Your task to perform on an android device: Open Yahoo.com Image 0: 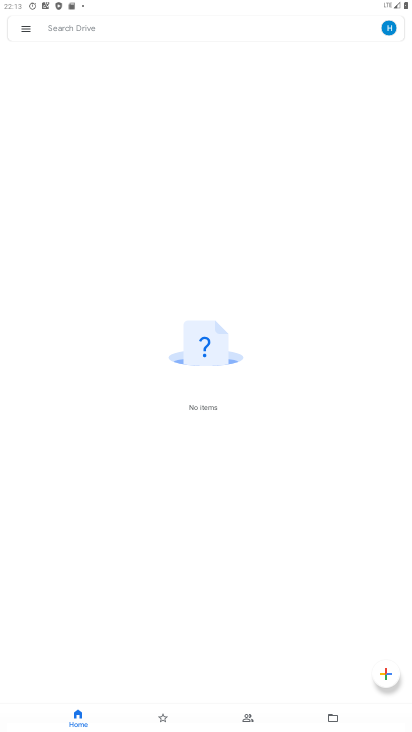
Step 0: press home button
Your task to perform on an android device: Open Yahoo.com Image 1: 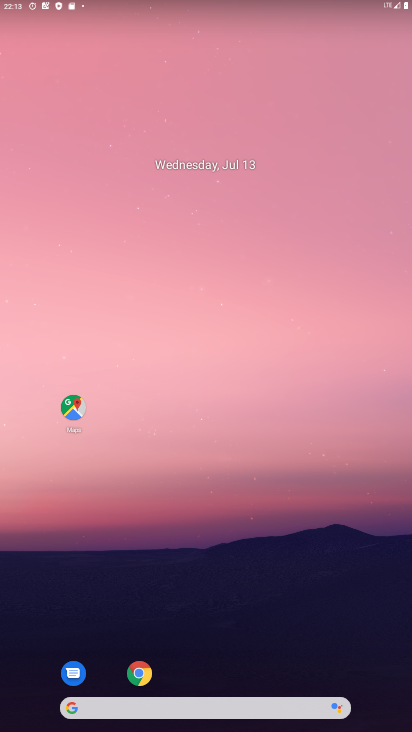
Step 1: drag from (184, 635) to (245, 255)
Your task to perform on an android device: Open Yahoo.com Image 2: 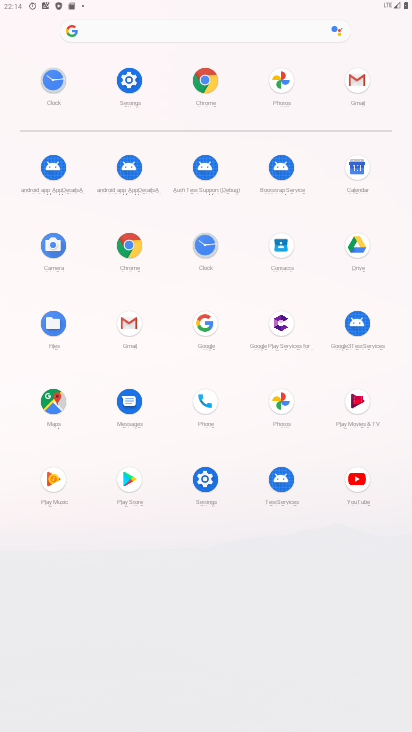
Step 2: click (132, 246)
Your task to perform on an android device: Open Yahoo.com Image 3: 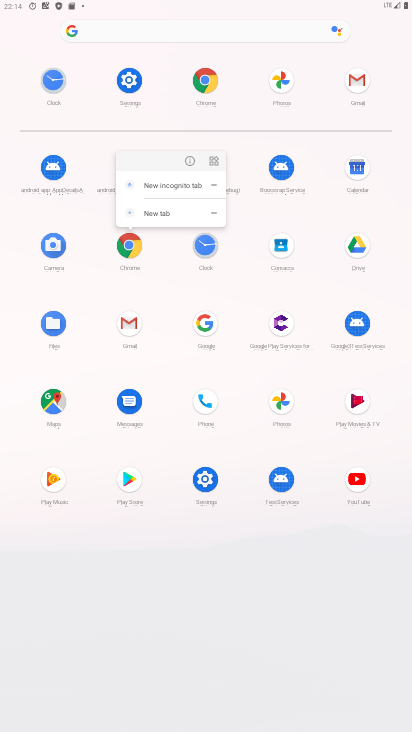
Step 3: click (187, 158)
Your task to perform on an android device: Open Yahoo.com Image 4: 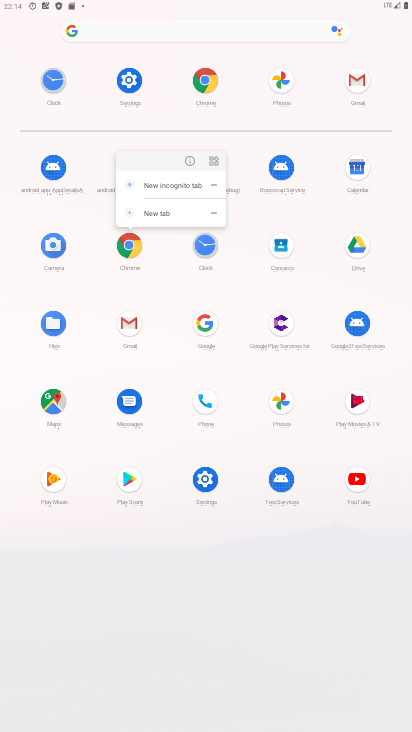
Step 4: click (187, 158)
Your task to perform on an android device: Open Yahoo.com Image 5: 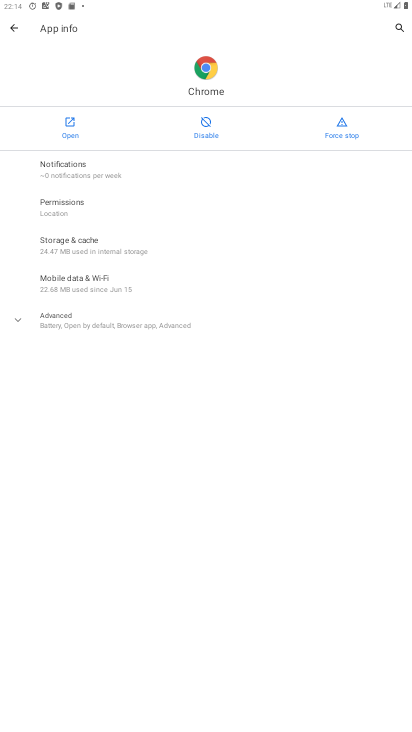
Step 5: click (69, 125)
Your task to perform on an android device: Open Yahoo.com Image 6: 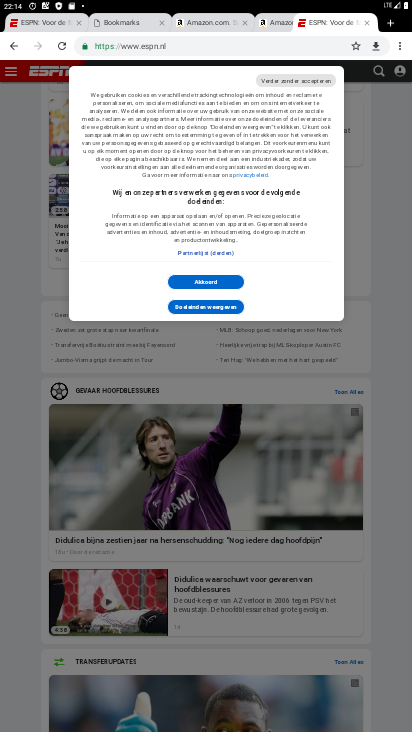
Step 6: click (367, 21)
Your task to perform on an android device: Open Yahoo.com Image 7: 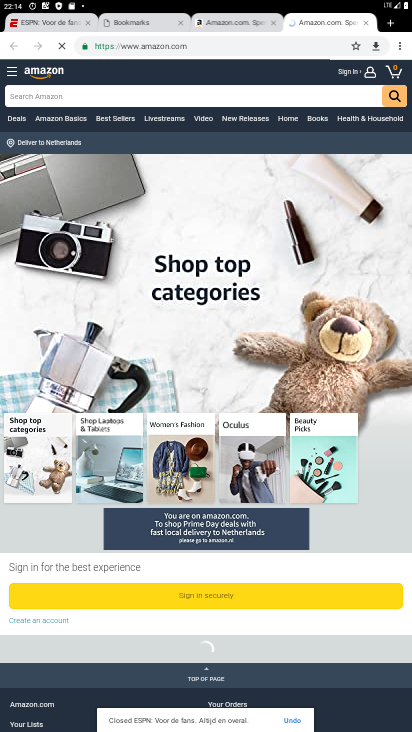
Step 7: click (366, 24)
Your task to perform on an android device: Open Yahoo.com Image 8: 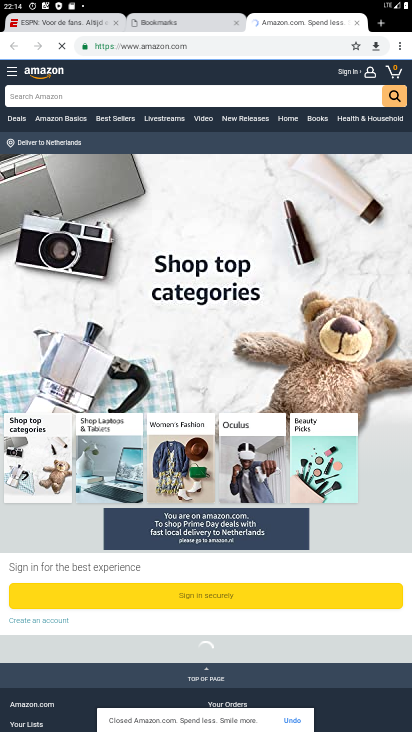
Step 8: click (359, 24)
Your task to perform on an android device: Open Yahoo.com Image 9: 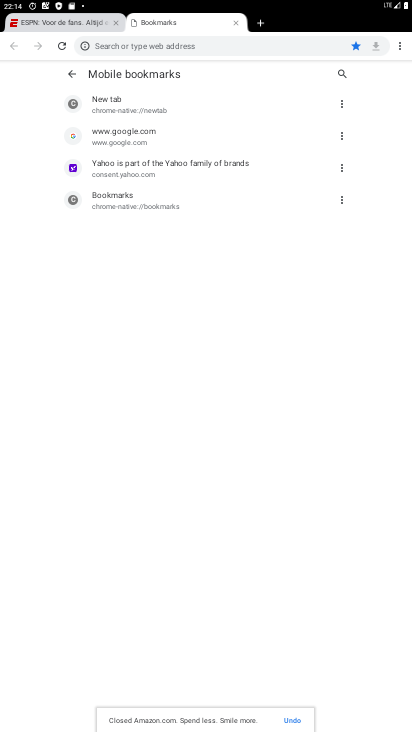
Step 9: click (259, 22)
Your task to perform on an android device: Open Yahoo.com Image 10: 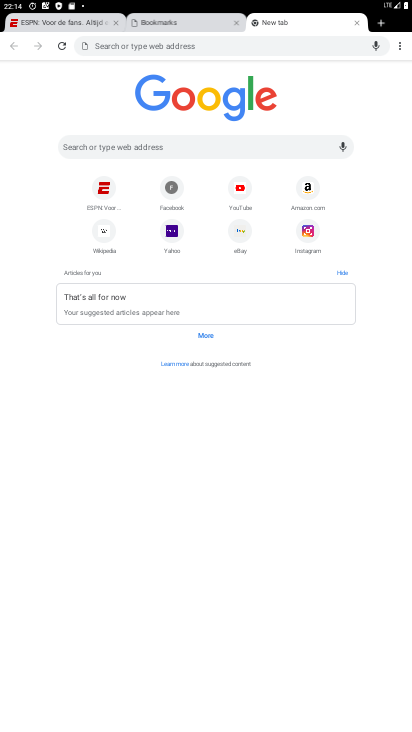
Step 10: click (169, 233)
Your task to perform on an android device: Open Yahoo.com Image 11: 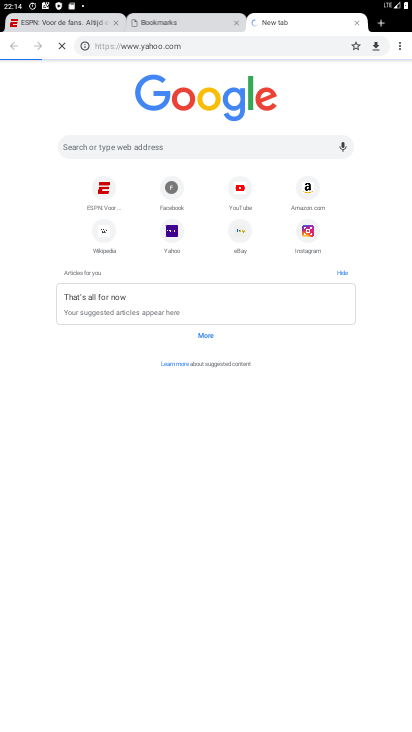
Step 11: task complete